Your task to perform on an android device: star an email in the gmail app Image 0: 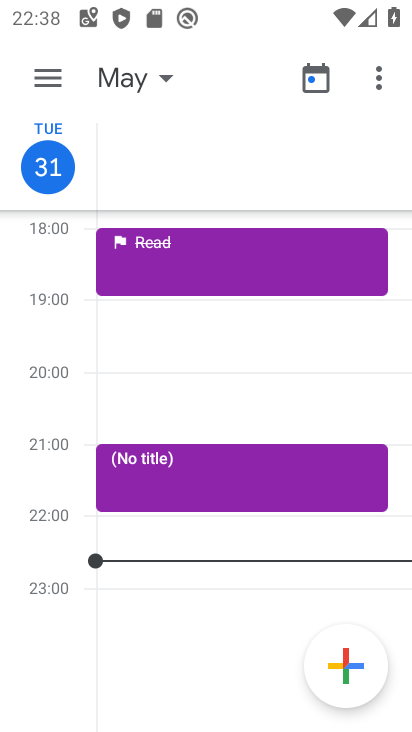
Step 0: press home button
Your task to perform on an android device: star an email in the gmail app Image 1: 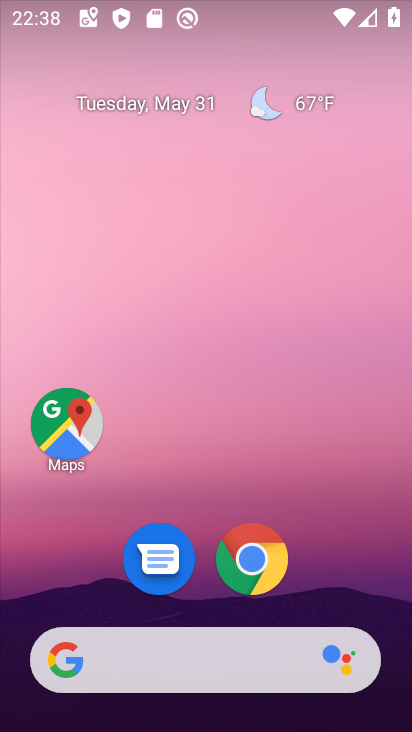
Step 1: drag from (325, 577) to (297, 56)
Your task to perform on an android device: star an email in the gmail app Image 2: 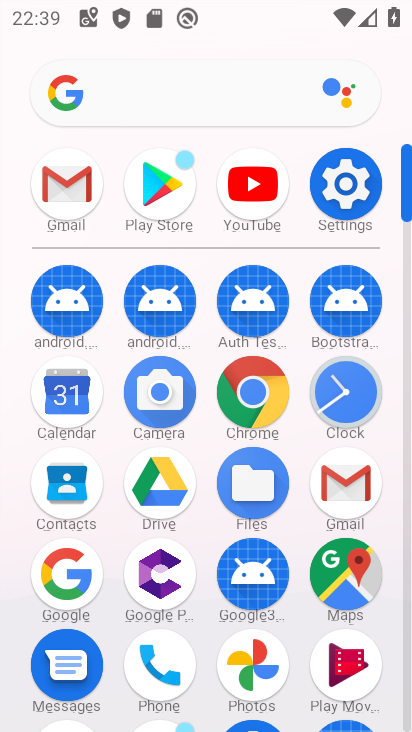
Step 2: click (65, 183)
Your task to perform on an android device: star an email in the gmail app Image 3: 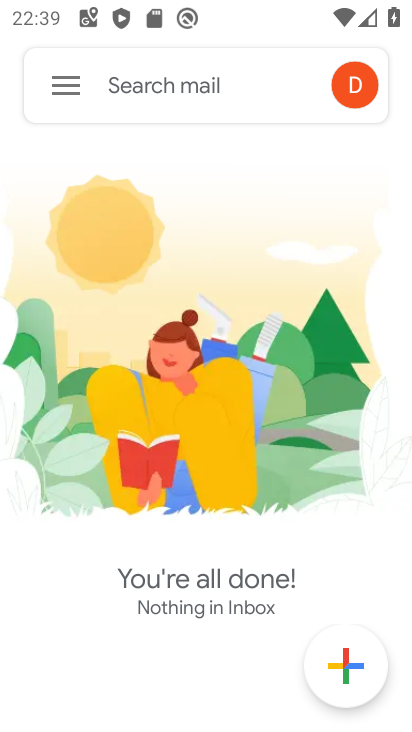
Step 3: click (66, 80)
Your task to perform on an android device: star an email in the gmail app Image 4: 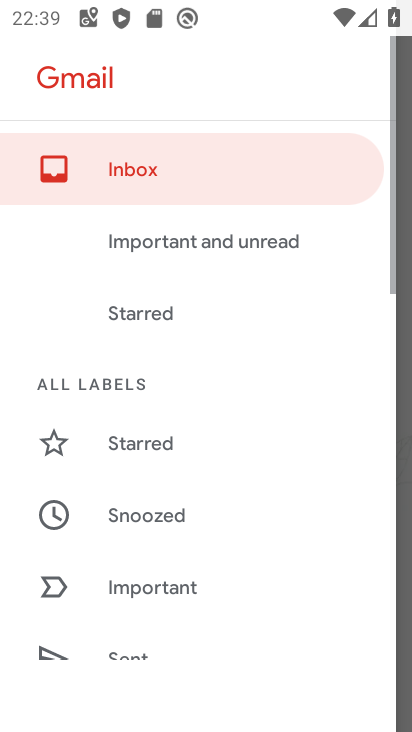
Step 4: drag from (245, 549) to (212, 162)
Your task to perform on an android device: star an email in the gmail app Image 5: 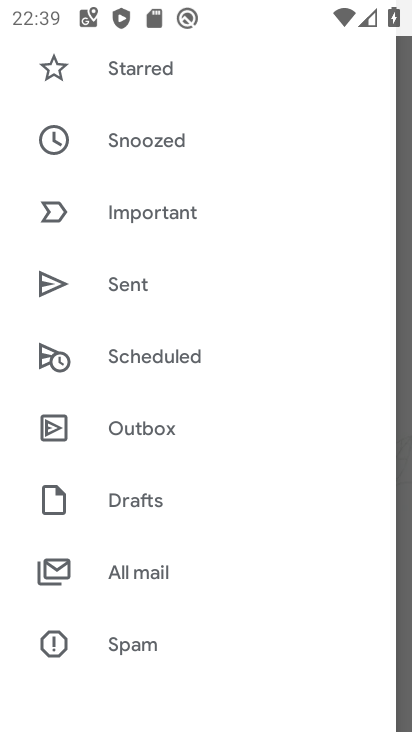
Step 5: click (148, 574)
Your task to perform on an android device: star an email in the gmail app Image 6: 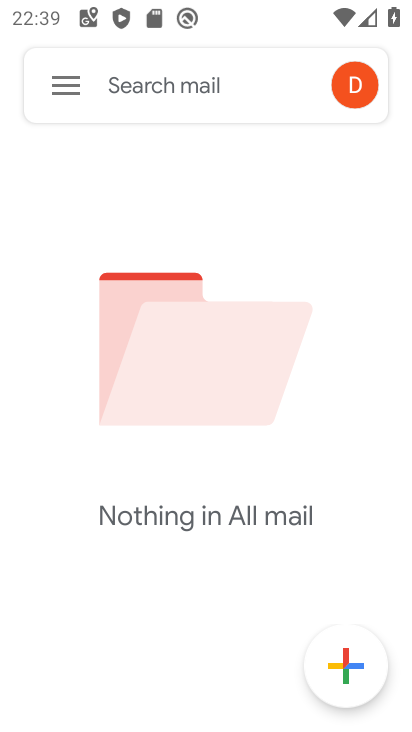
Step 6: task complete